Your task to perform on an android device: create a new album in the google photos Image 0: 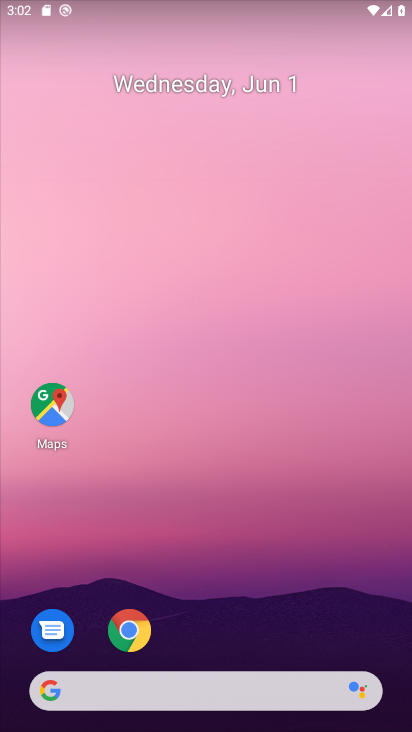
Step 0: drag from (195, 675) to (292, 224)
Your task to perform on an android device: create a new album in the google photos Image 1: 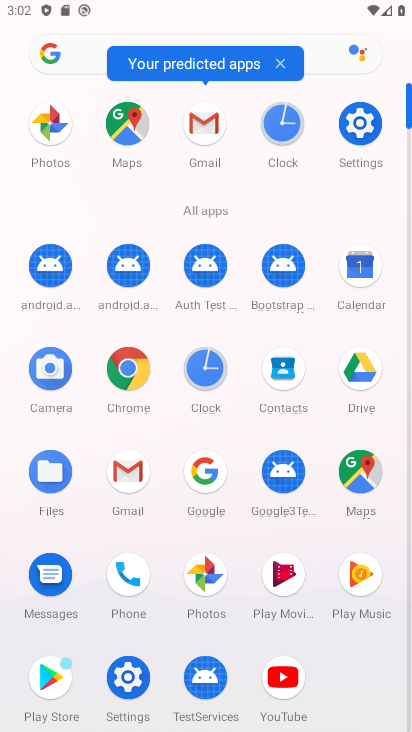
Step 1: click (208, 585)
Your task to perform on an android device: create a new album in the google photos Image 2: 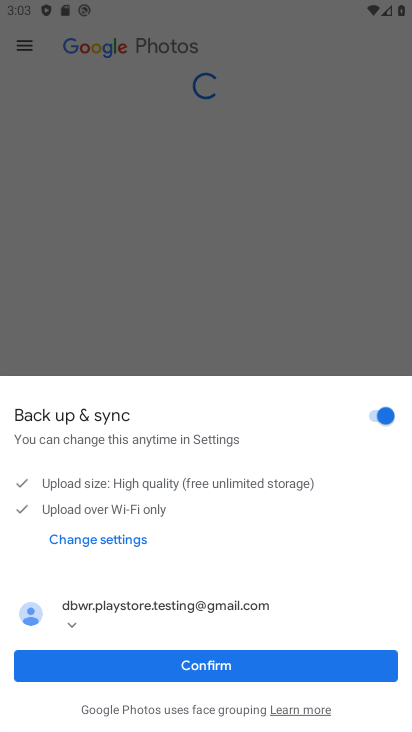
Step 2: click (204, 675)
Your task to perform on an android device: create a new album in the google photos Image 3: 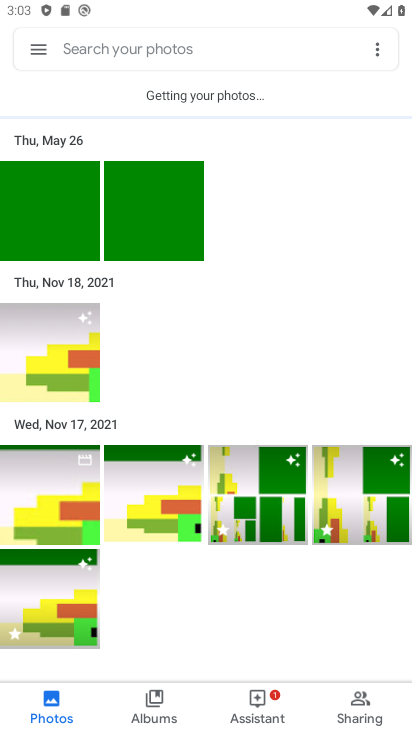
Step 3: click (55, 515)
Your task to perform on an android device: create a new album in the google photos Image 4: 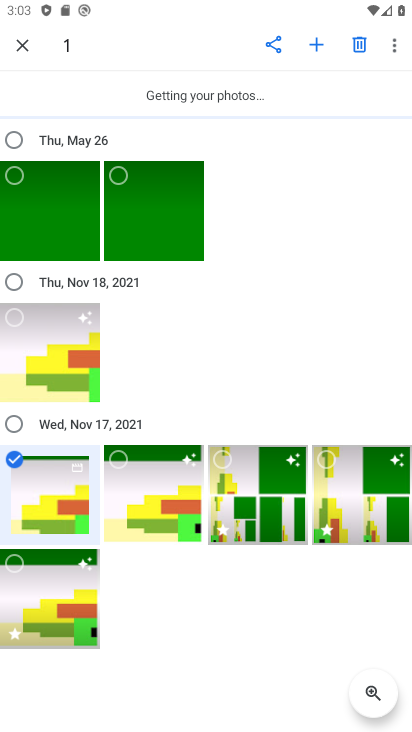
Step 4: click (11, 432)
Your task to perform on an android device: create a new album in the google photos Image 5: 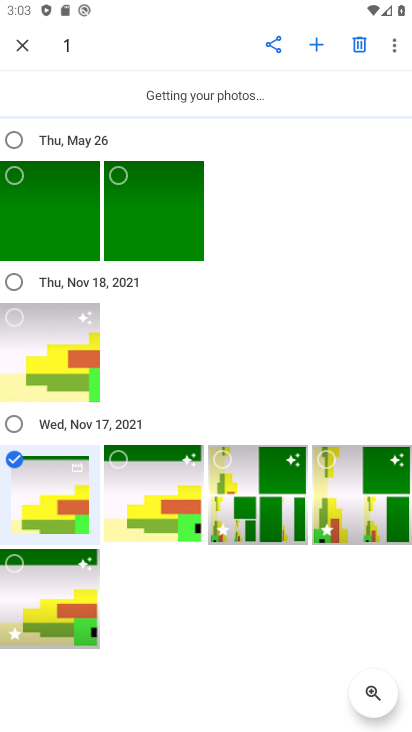
Step 5: click (12, 416)
Your task to perform on an android device: create a new album in the google photos Image 6: 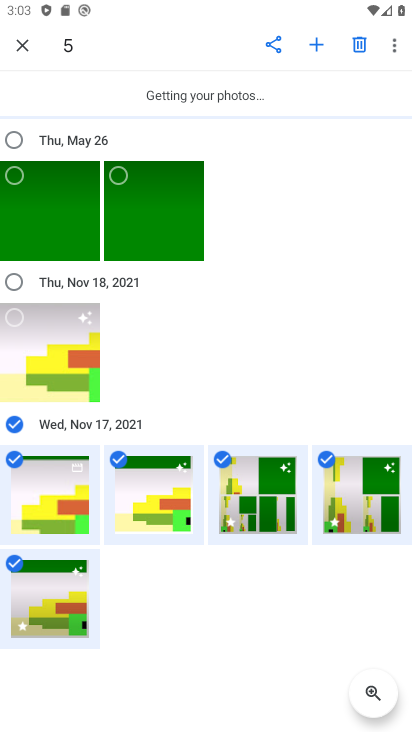
Step 6: click (309, 45)
Your task to perform on an android device: create a new album in the google photos Image 7: 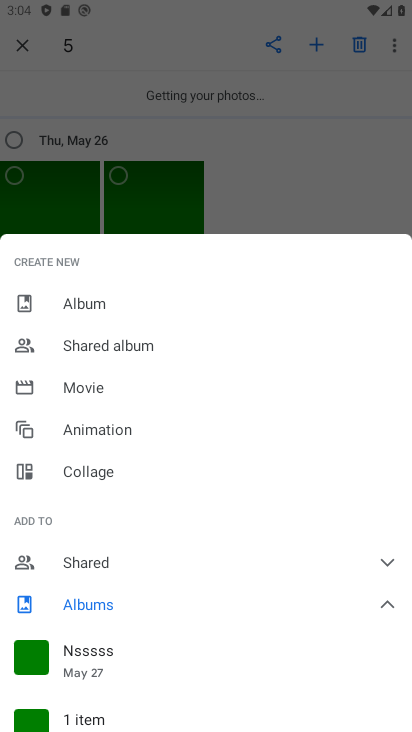
Step 7: click (101, 308)
Your task to perform on an android device: create a new album in the google photos Image 8: 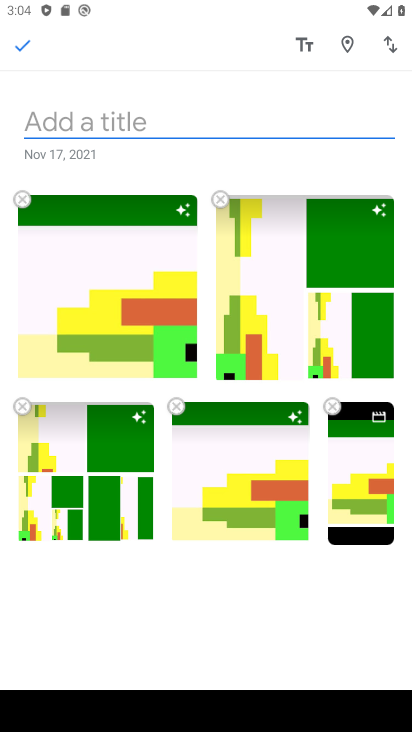
Step 8: type "yoooooooo"
Your task to perform on an android device: create a new album in the google photos Image 9: 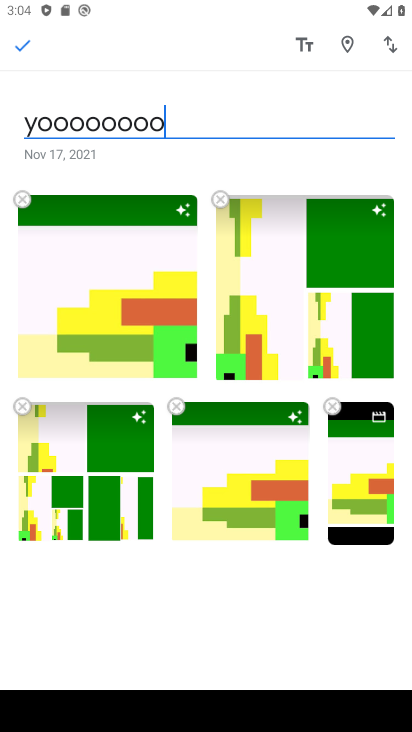
Step 9: click (23, 41)
Your task to perform on an android device: create a new album in the google photos Image 10: 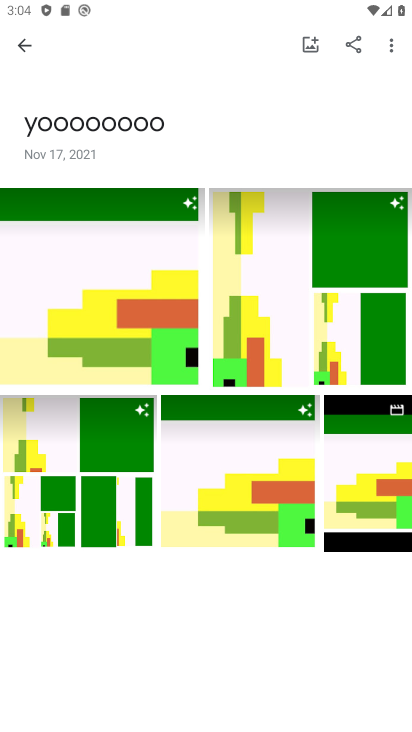
Step 10: task complete